Your task to perform on an android device: Clear all items from cart on costco.com. Add bose soundsport free to the cart on costco.com, then select checkout. Image 0: 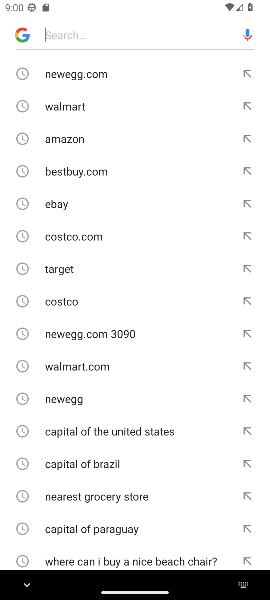
Step 0: click (63, 239)
Your task to perform on an android device: Clear all items from cart on costco.com. Add bose soundsport free to the cart on costco.com, then select checkout. Image 1: 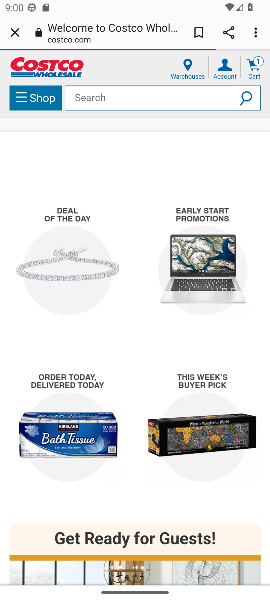
Step 1: click (251, 69)
Your task to perform on an android device: Clear all items from cart on costco.com. Add bose soundsport free to the cart on costco.com, then select checkout. Image 2: 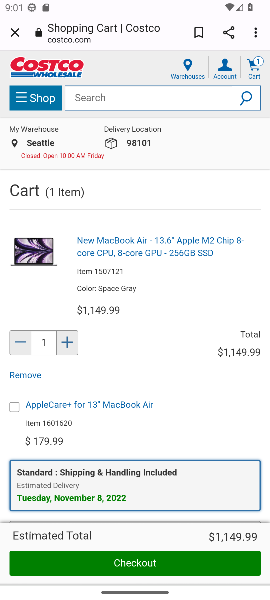
Step 2: click (28, 375)
Your task to perform on an android device: Clear all items from cart on costco.com. Add bose soundsport free to the cart on costco.com, then select checkout. Image 3: 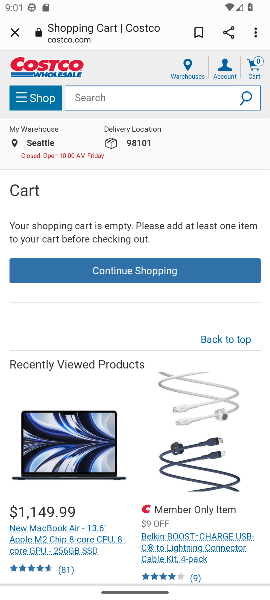
Step 3: click (155, 92)
Your task to perform on an android device: Clear all items from cart on costco.com. Add bose soundsport free to the cart on costco.com, then select checkout. Image 4: 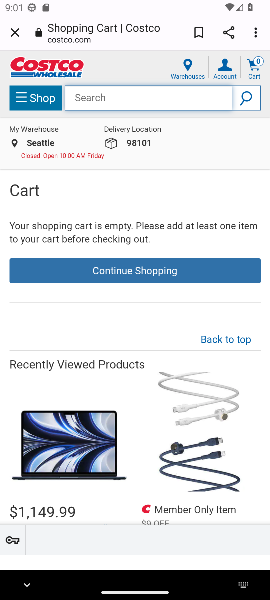
Step 4: type "bose soundsport free"
Your task to perform on an android device: Clear all items from cart on costco.com. Add bose soundsport free to the cart on costco.com, then select checkout. Image 5: 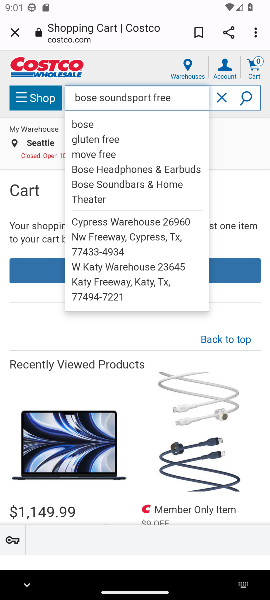
Step 5: click (244, 98)
Your task to perform on an android device: Clear all items from cart on costco.com. Add bose soundsport free to the cart on costco.com, then select checkout. Image 6: 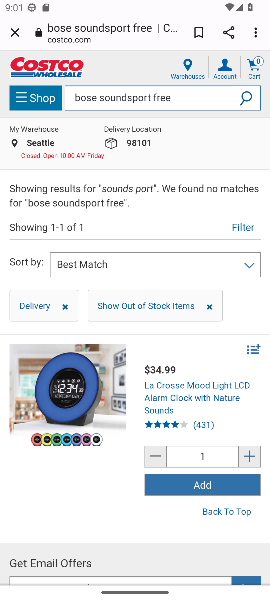
Step 6: task complete